Your task to perform on an android device: Open ESPN.com Image 0: 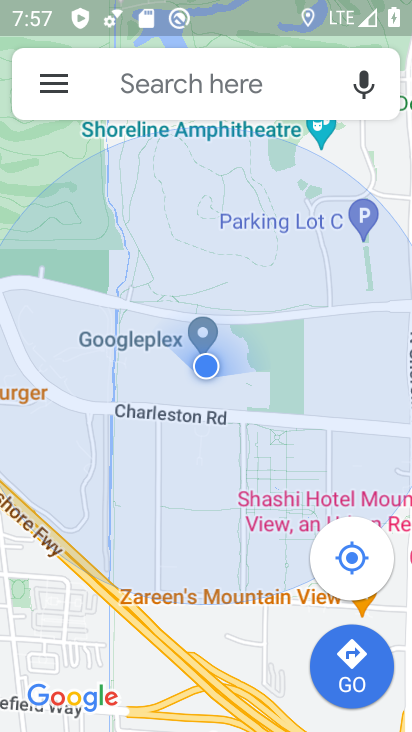
Step 0: press home button
Your task to perform on an android device: Open ESPN.com Image 1: 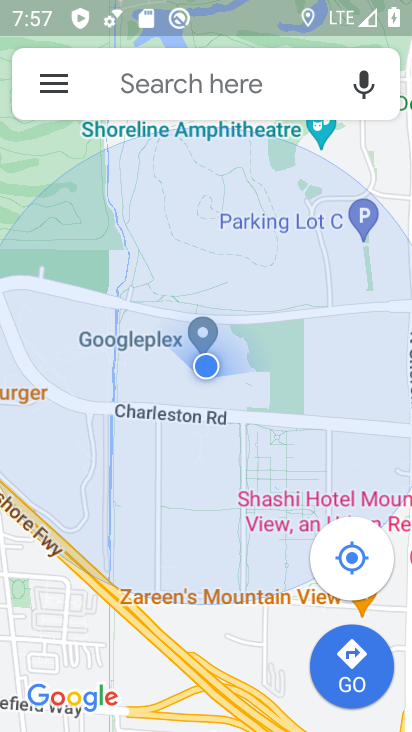
Step 1: click (395, 295)
Your task to perform on an android device: Open ESPN.com Image 2: 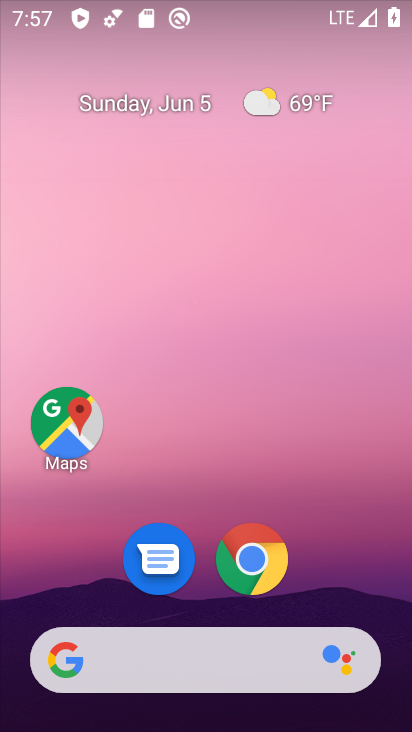
Step 2: click (254, 564)
Your task to perform on an android device: Open ESPN.com Image 3: 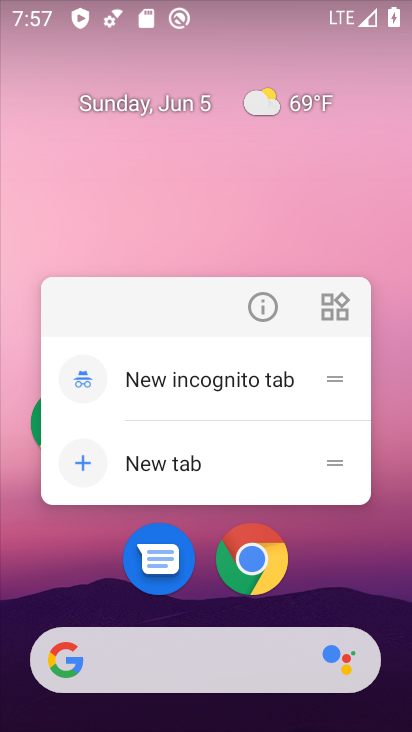
Step 3: click (329, 560)
Your task to perform on an android device: Open ESPN.com Image 4: 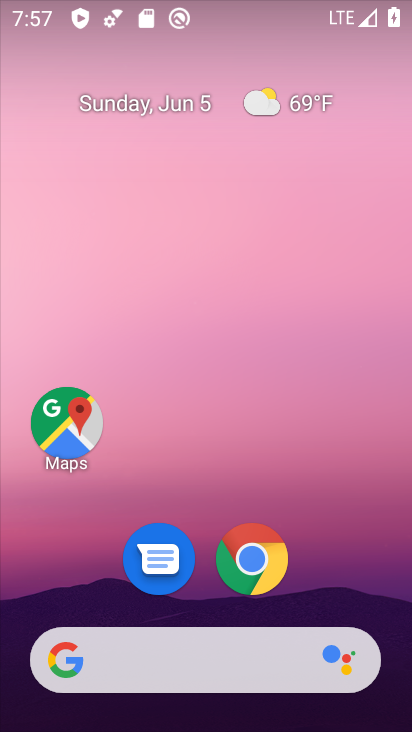
Step 4: click (231, 670)
Your task to perform on an android device: Open ESPN.com Image 5: 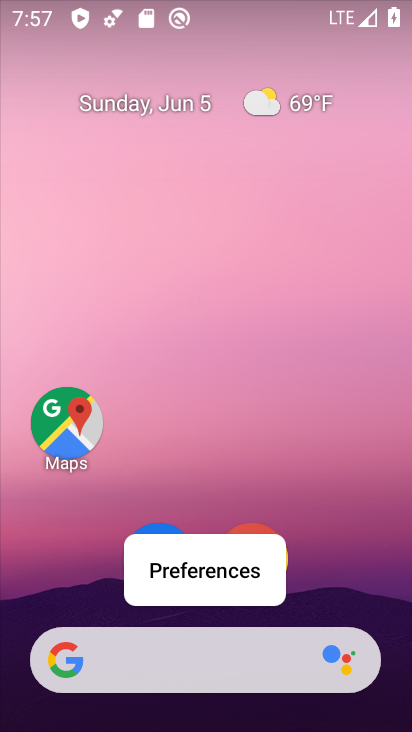
Step 5: click (231, 670)
Your task to perform on an android device: Open ESPN.com Image 6: 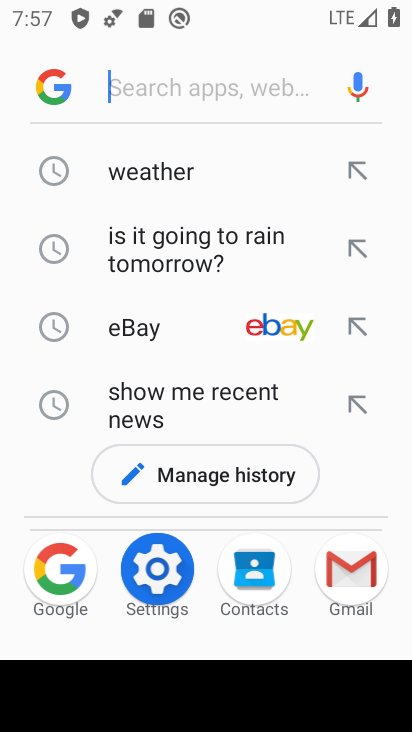
Step 6: type "espn.com"
Your task to perform on an android device: Open ESPN.com Image 7: 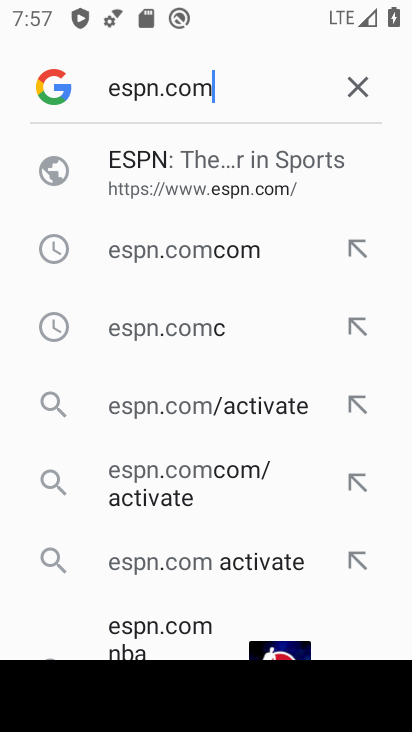
Step 7: click (169, 175)
Your task to perform on an android device: Open ESPN.com Image 8: 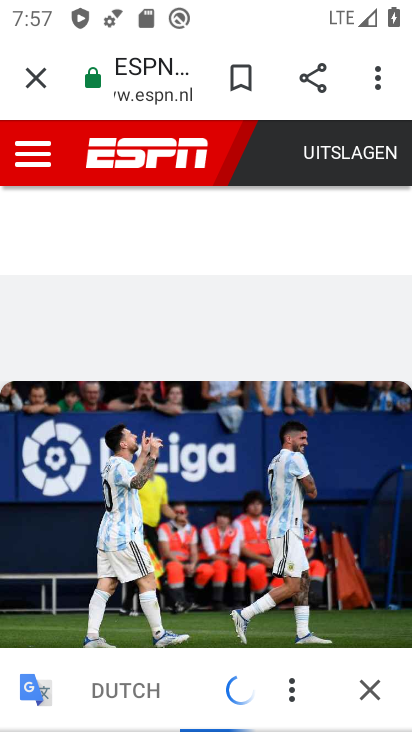
Step 8: task complete